Your task to perform on an android device: turn off javascript in the chrome app Image 0: 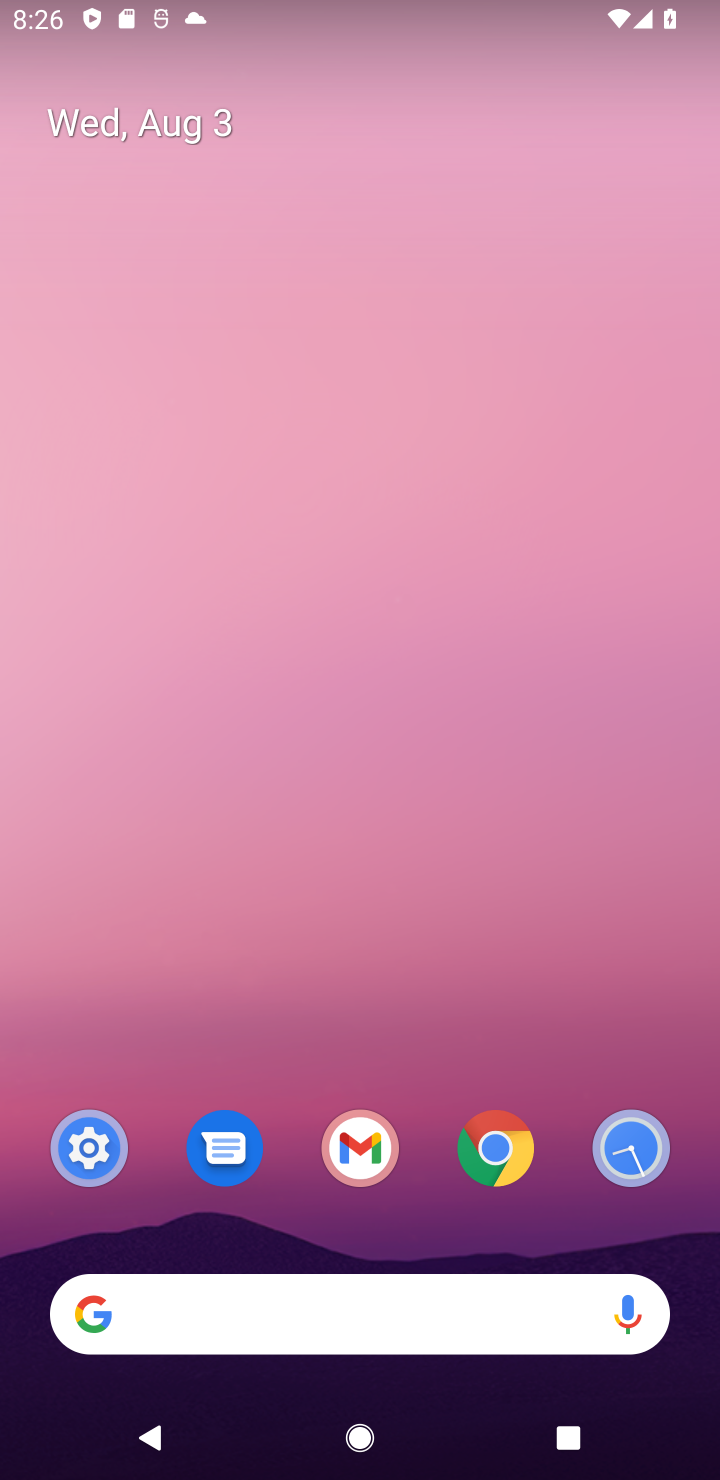
Step 0: click (522, 1138)
Your task to perform on an android device: turn off javascript in the chrome app Image 1: 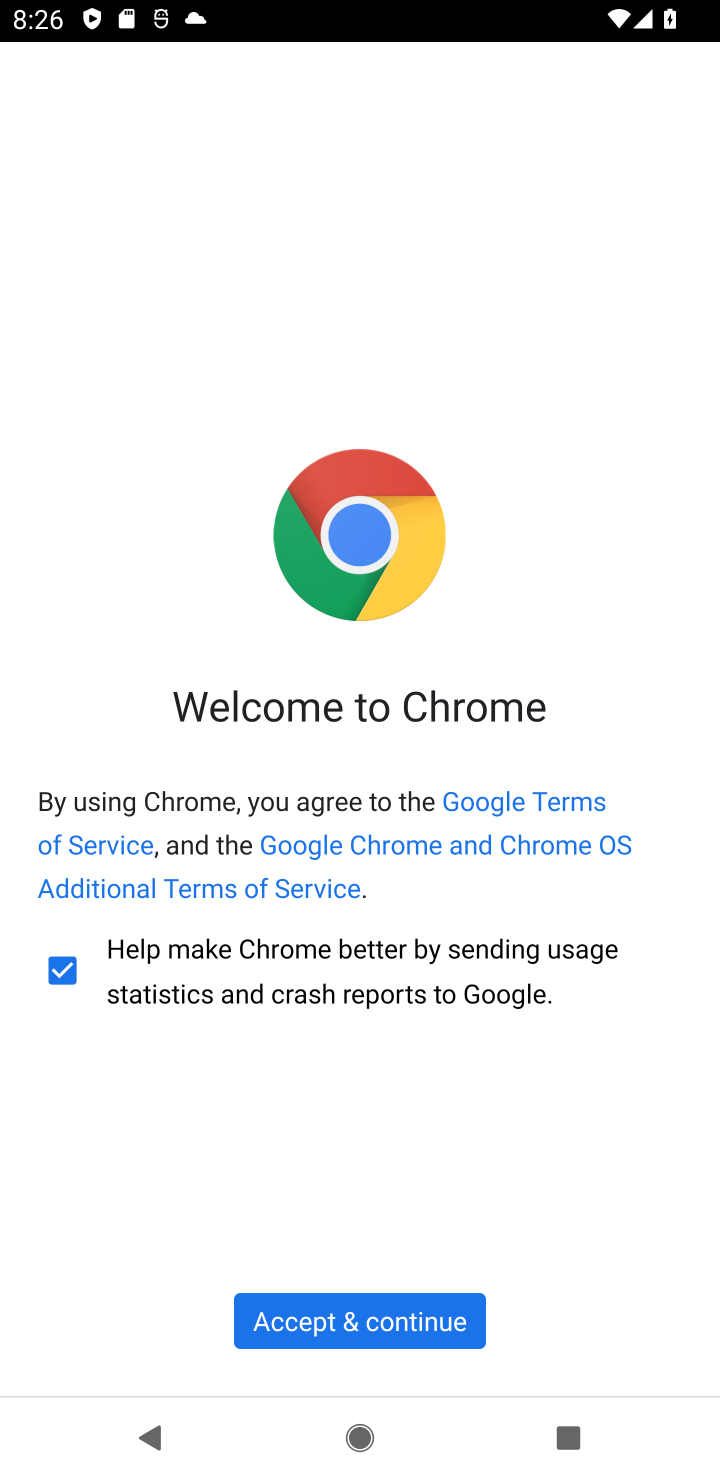
Step 1: click (408, 1322)
Your task to perform on an android device: turn off javascript in the chrome app Image 2: 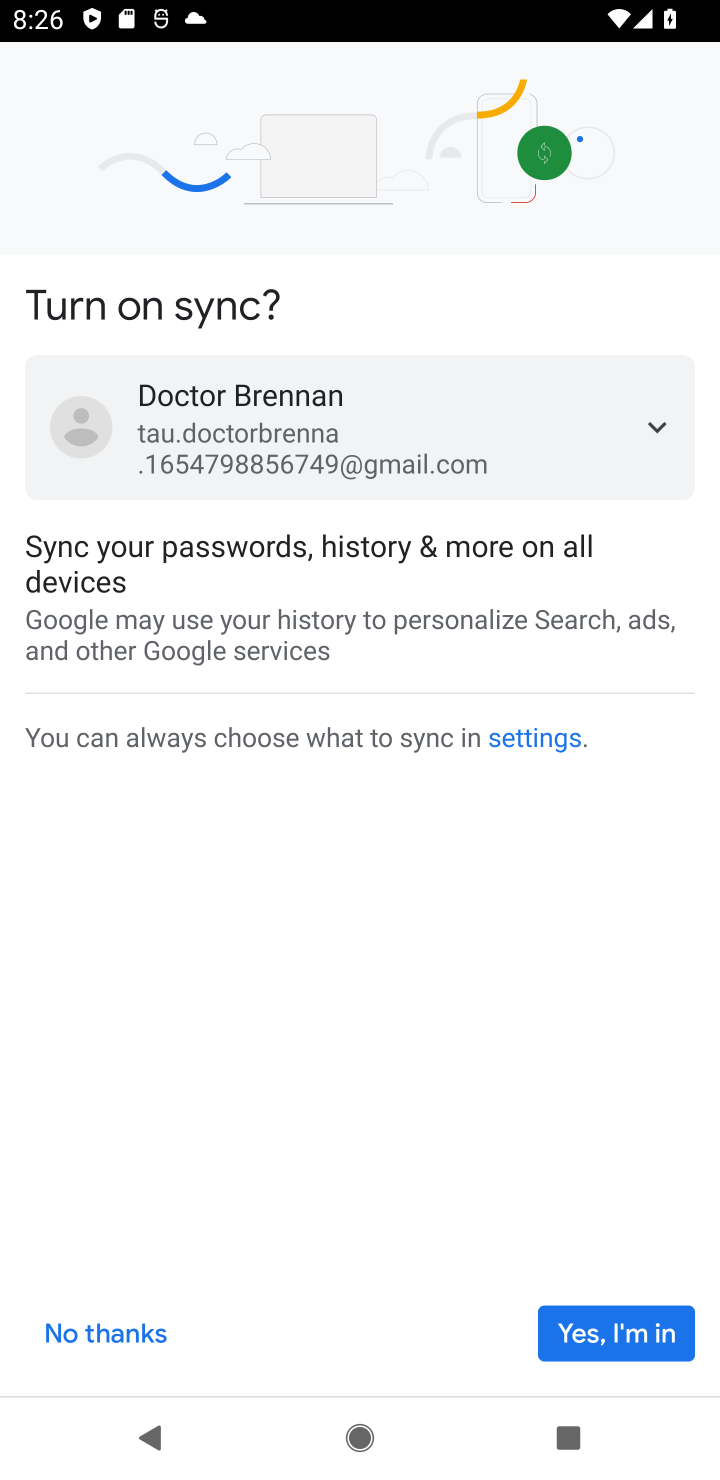
Step 2: click (605, 1319)
Your task to perform on an android device: turn off javascript in the chrome app Image 3: 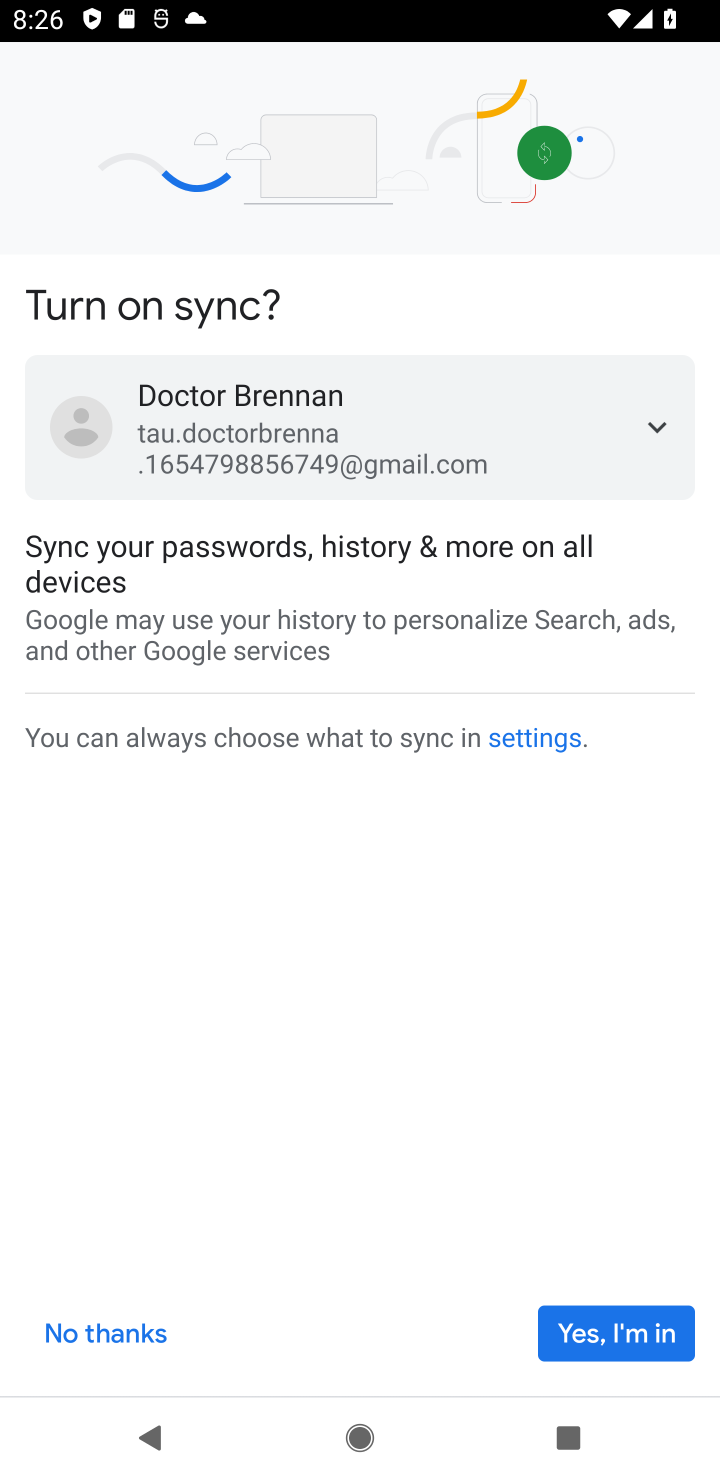
Step 3: click (613, 1325)
Your task to perform on an android device: turn off javascript in the chrome app Image 4: 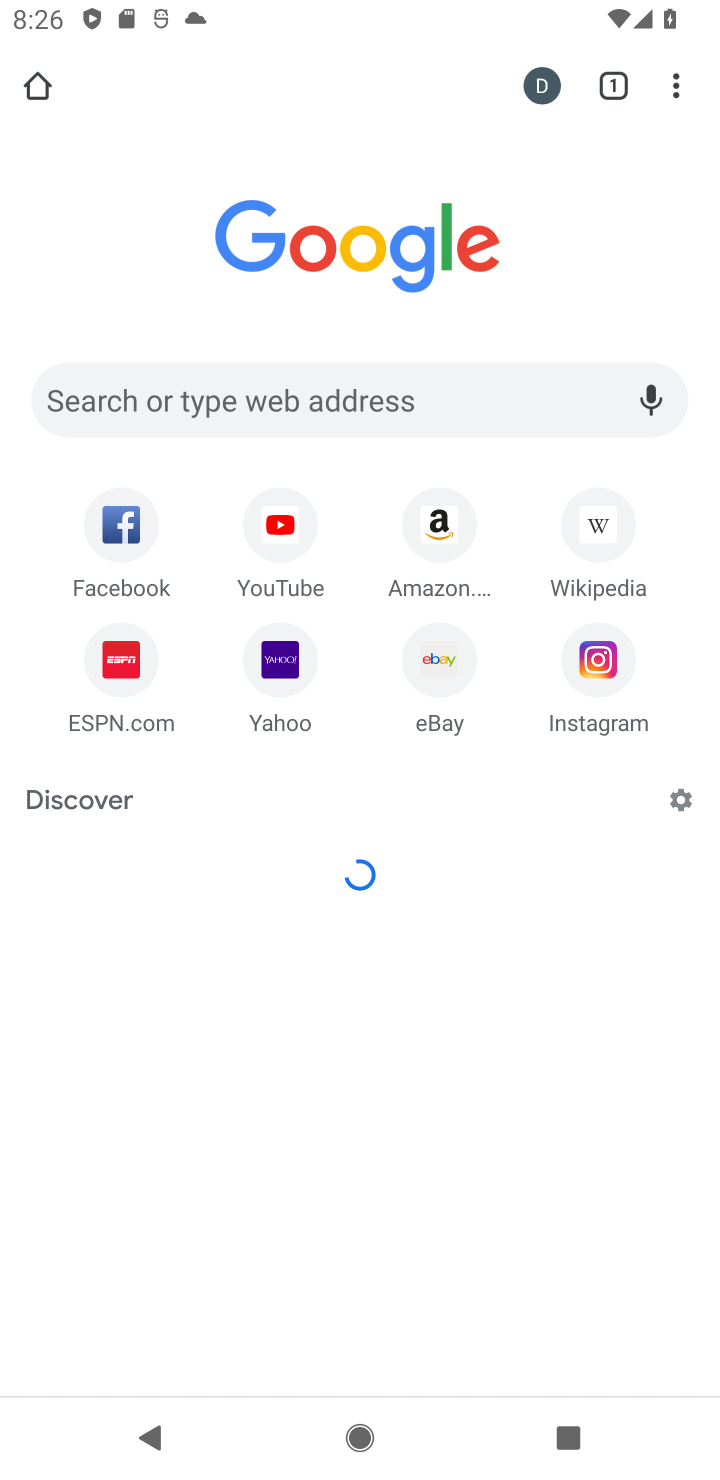
Step 4: click (659, 64)
Your task to perform on an android device: turn off javascript in the chrome app Image 5: 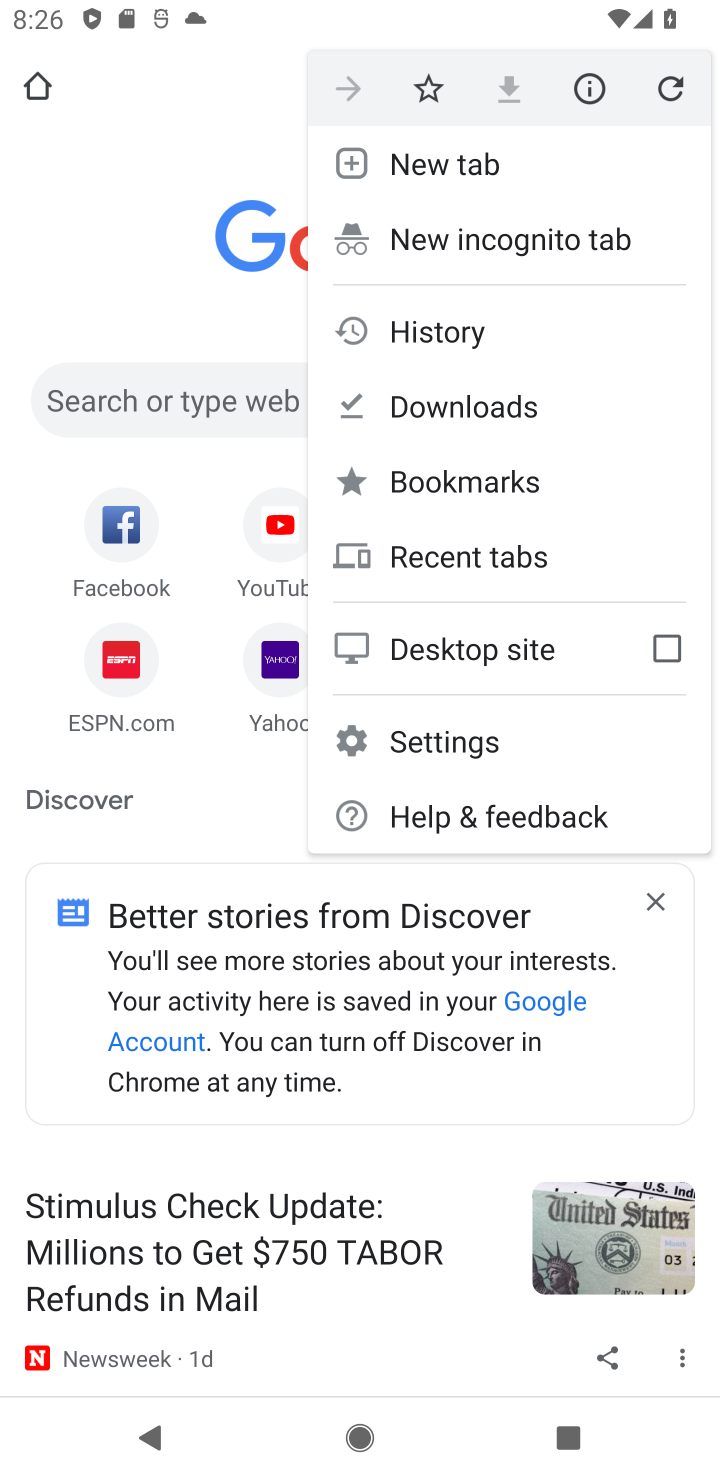
Step 5: click (553, 736)
Your task to perform on an android device: turn off javascript in the chrome app Image 6: 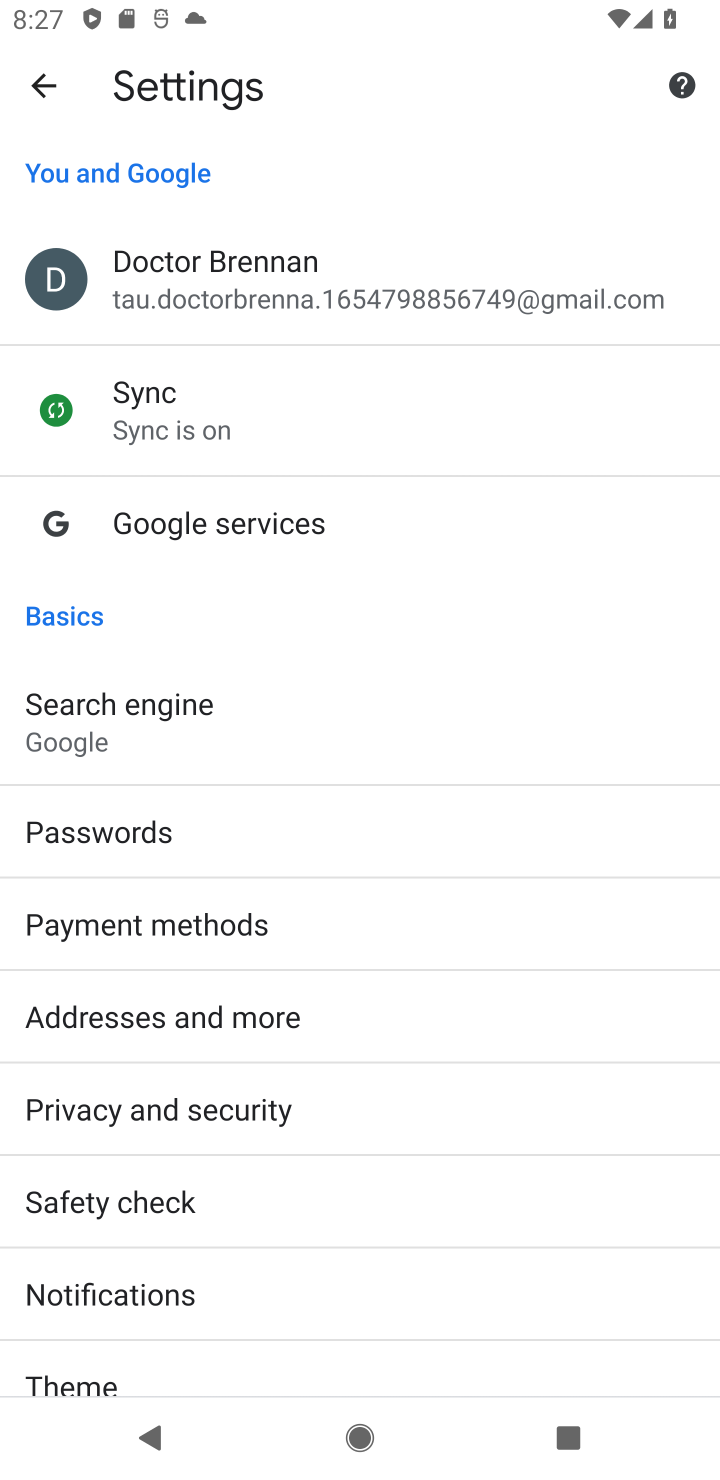
Step 6: drag from (304, 1299) to (291, 408)
Your task to perform on an android device: turn off javascript in the chrome app Image 7: 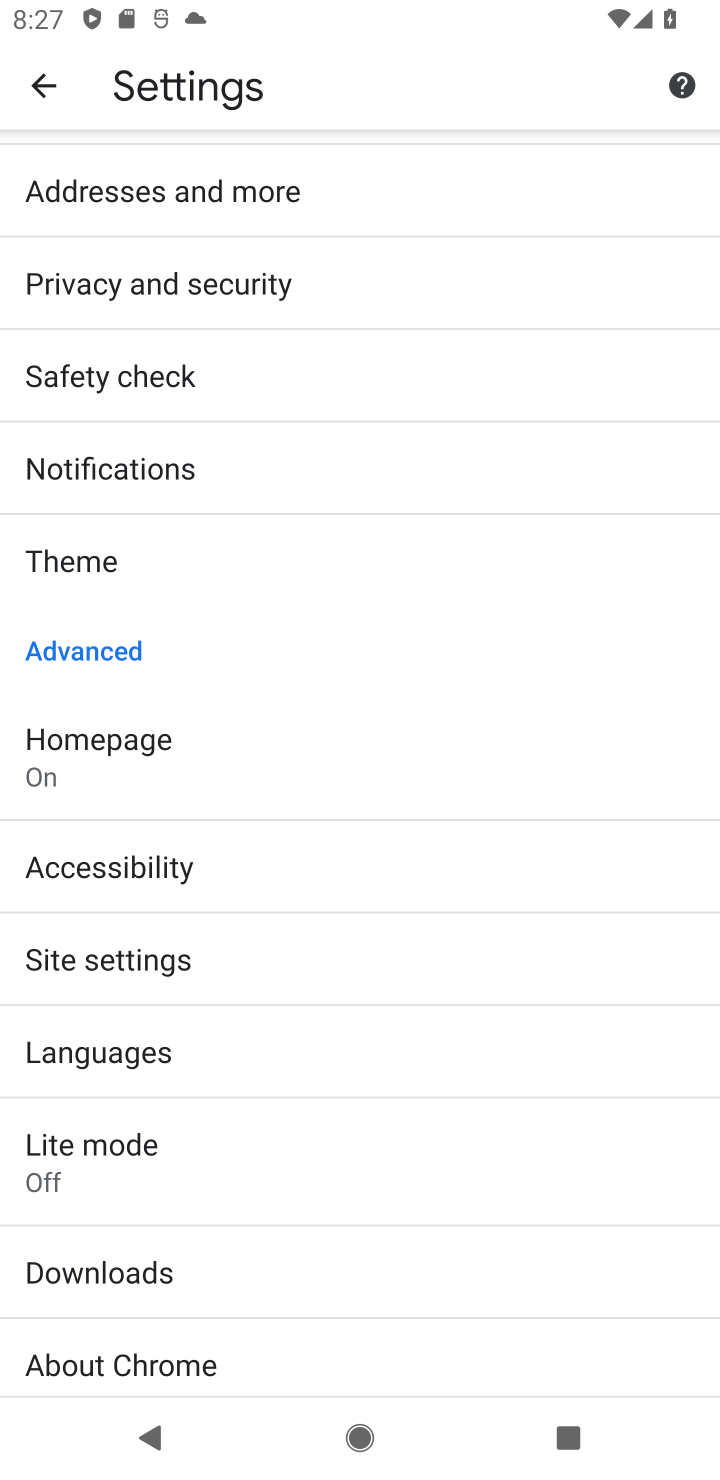
Step 7: click (329, 952)
Your task to perform on an android device: turn off javascript in the chrome app Image 8: 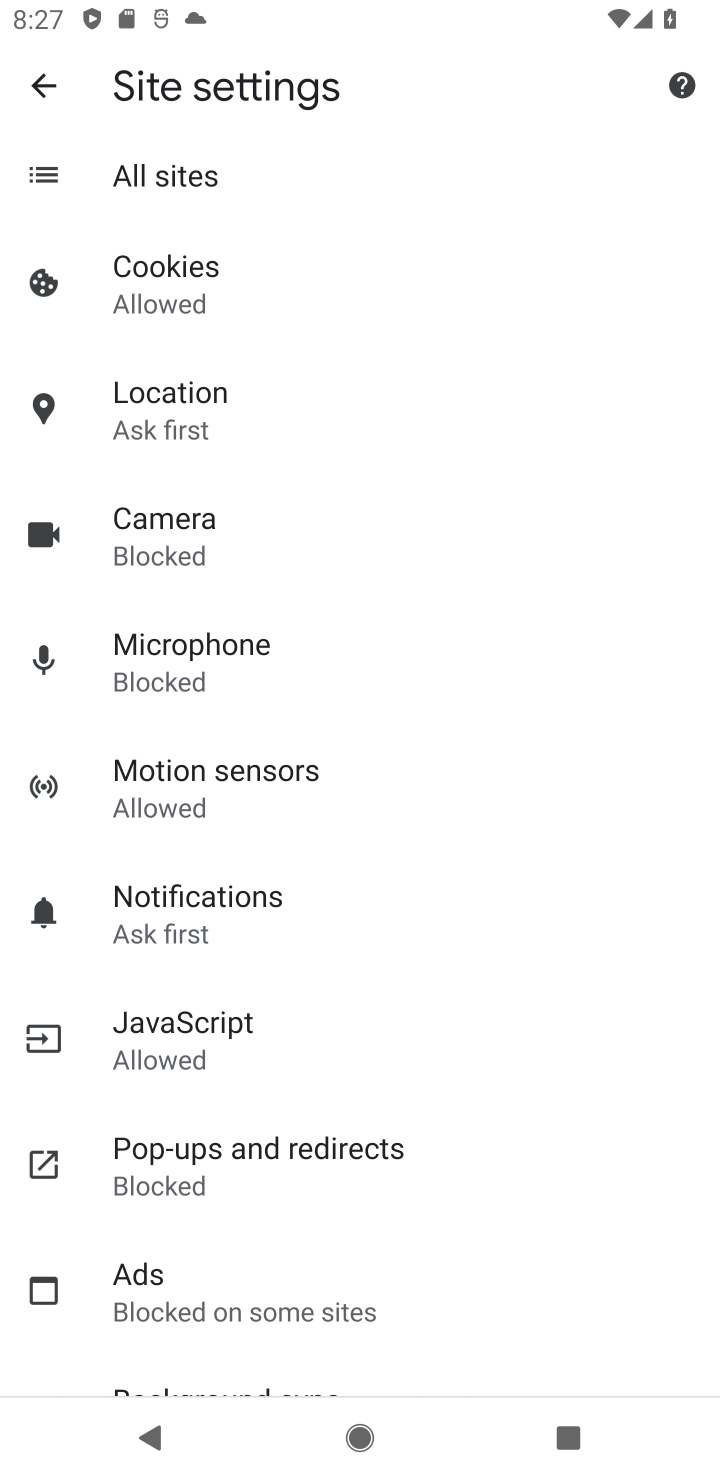
Step 8: click (323, 1020)
Your task to perform on an android device: turn off javascript in the chrome app Image 9: 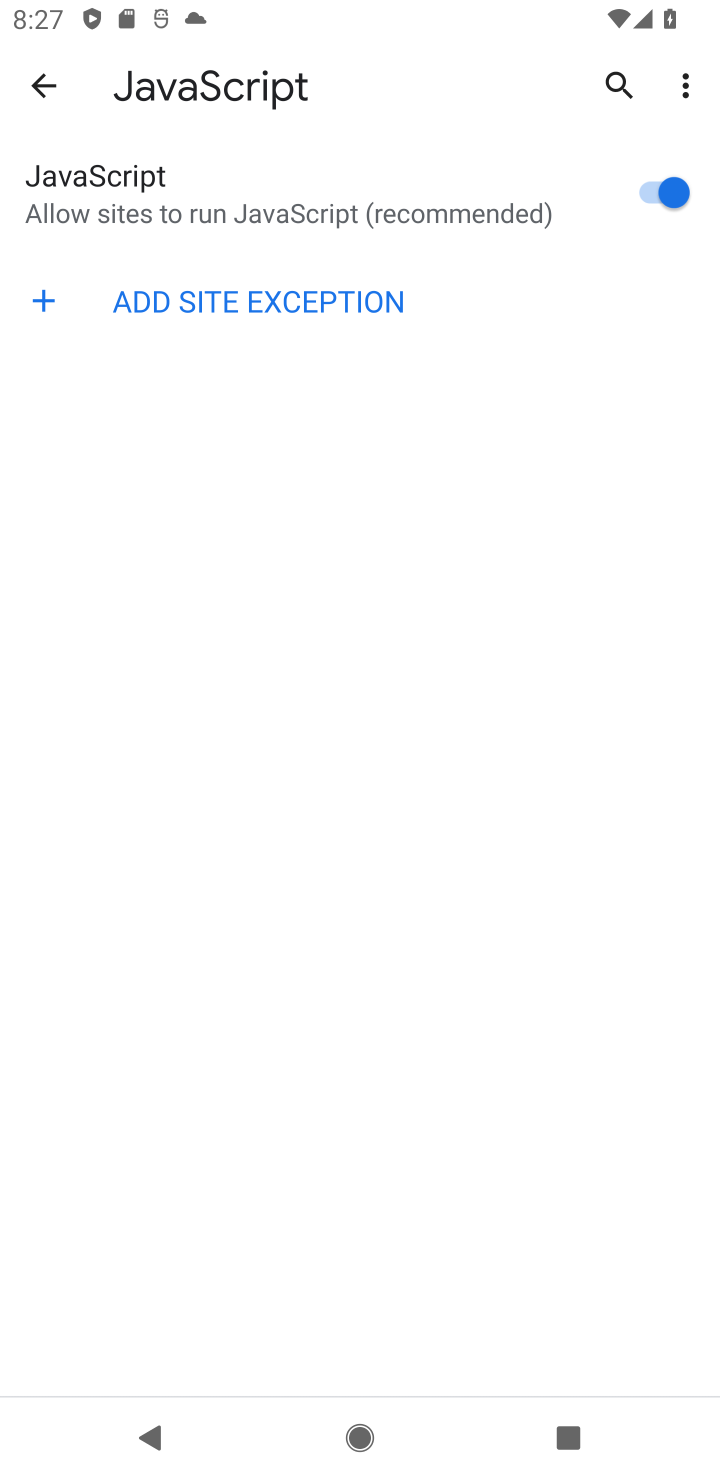
Step 9: click (656, 214)
Your task to perform on an android device: turn off javascript in the chrome app Image 10: 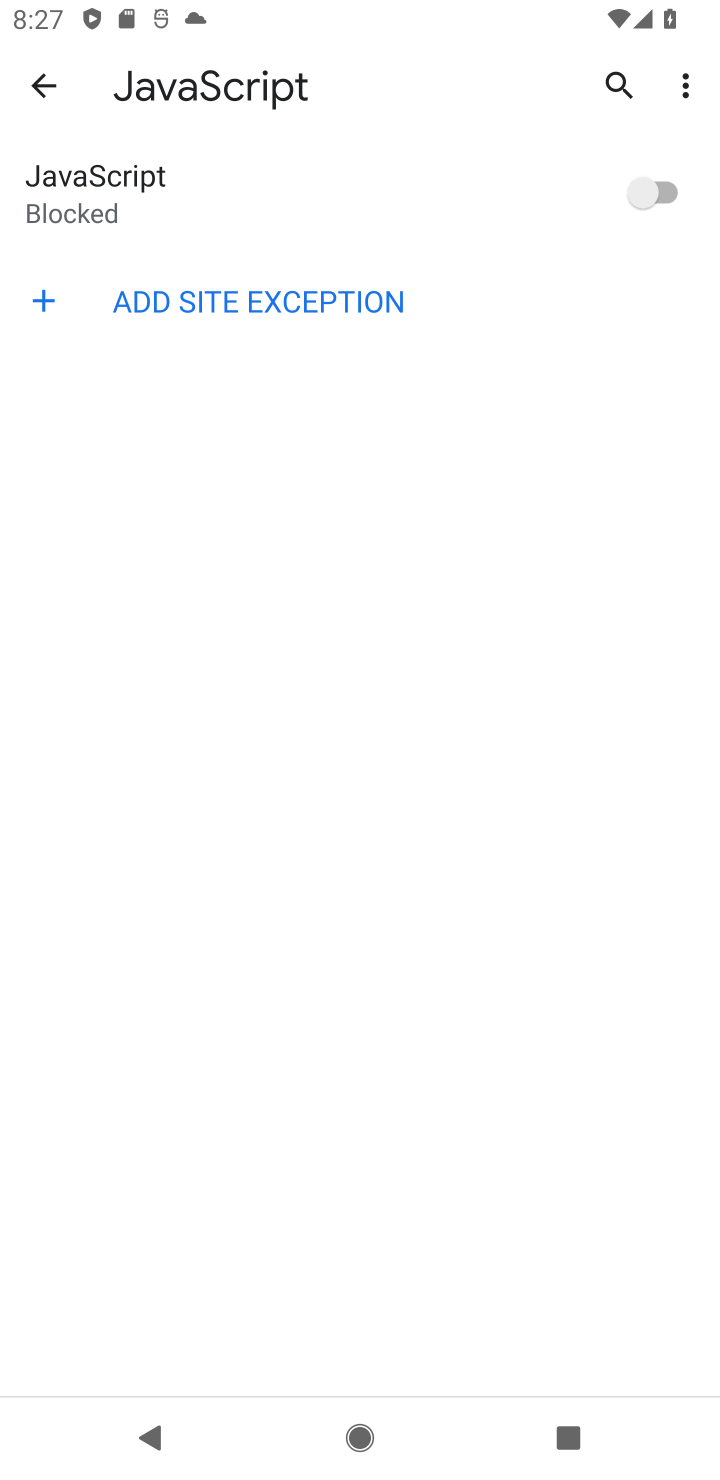
Step 10: task complete